Your task to perform on an android device: Show me productivity apps on the Play Store Image 0: 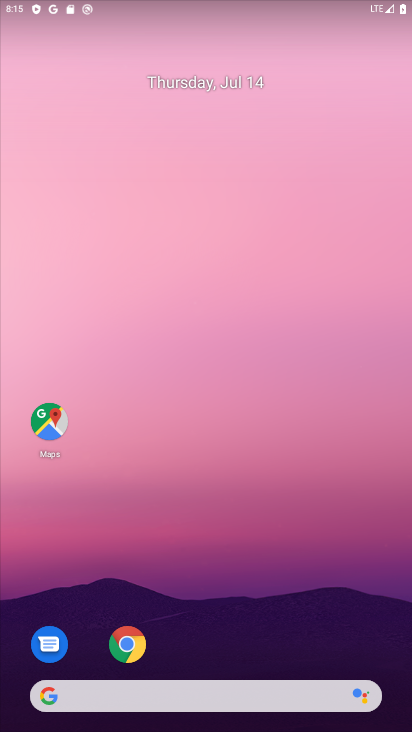
Step 0: drag from (244, 640) to (325, 200)
Your task to perform on an android device: Show me productivity apps on the Play Store Image 1: 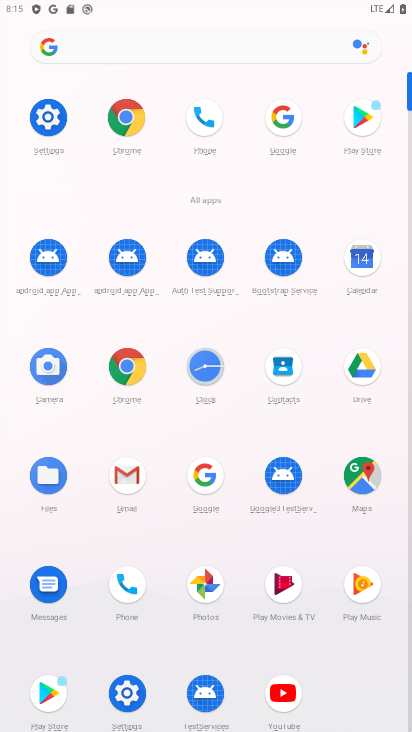
Step 1: click (71, 690)
Your task to perform on an android device: Show me productivity apps on the Play Store Image 2: 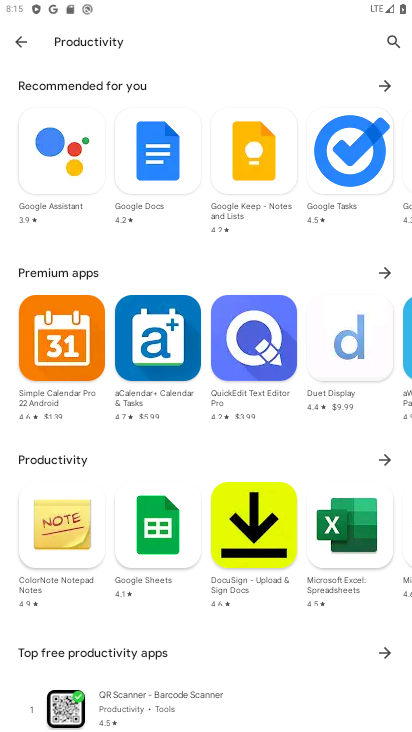
Step 2: task complete